Your task to perform on an android device: set the timer Image 0: 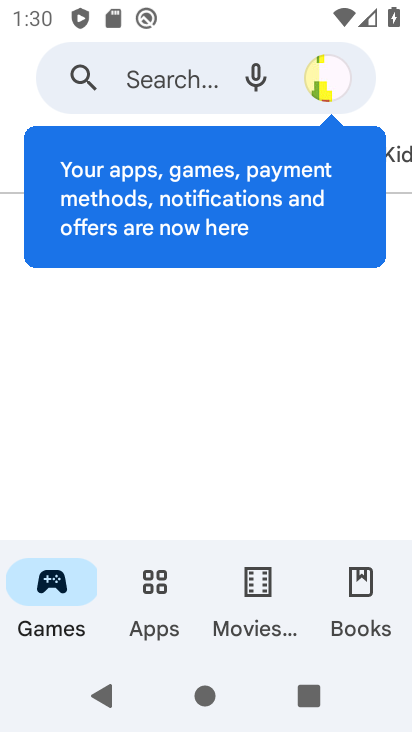
Step 0: press home button
Your task to perform on an android device: set the timer Image 1: 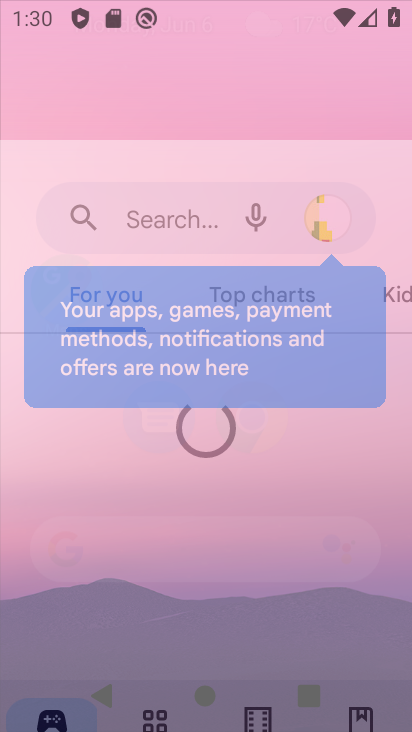
Step 1: press home button
Your task to perform on an android device: set the timer Image 2: 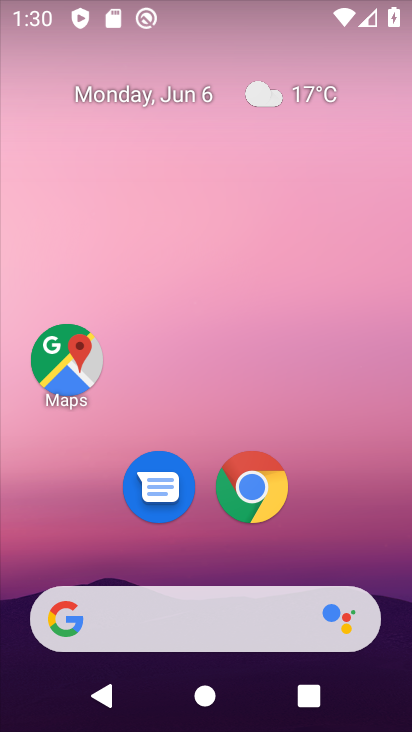
Step 2: press home button
Your task to perform on an android device: set the timer Image 3: 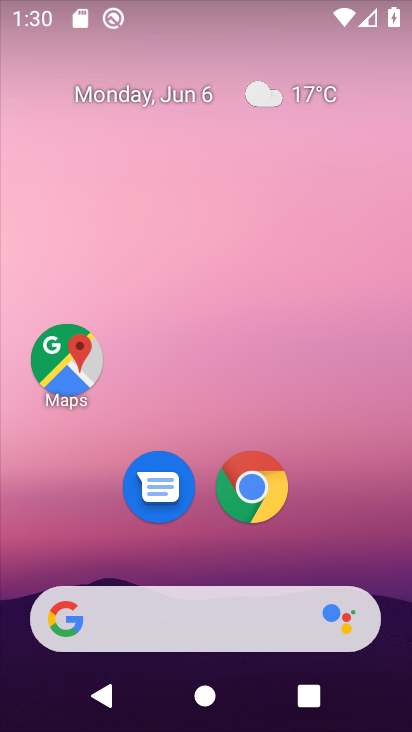
Step 3: click (251, 104)
Your task to perform on an android device: set the timer Image 4: 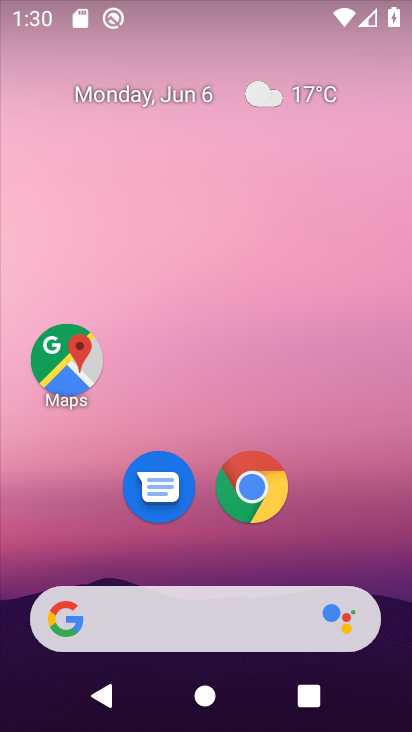
Step 4: drag from (253, 591) to (411, 64)
Your task to perform on an android device: set the timer Image 5: 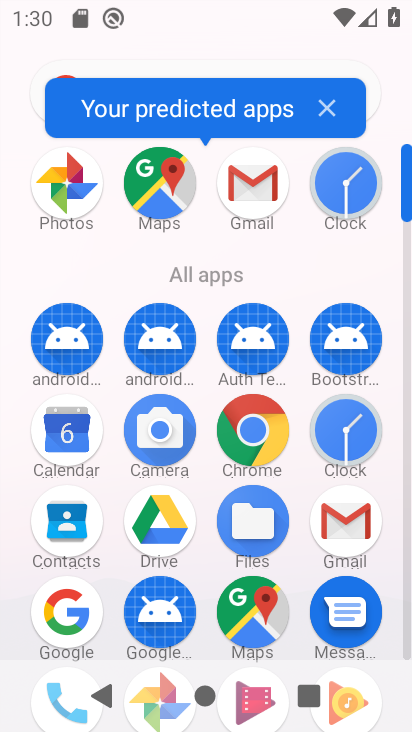
Step 5: click (343, 190)
Your task to perform on an android device: set the timer Image 6: 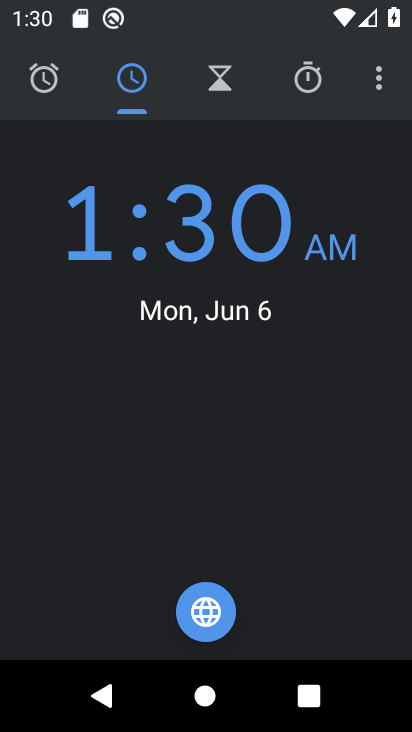
Step 6: click (34, 73)
Your task to perform on an android device: set the timer Image 7: 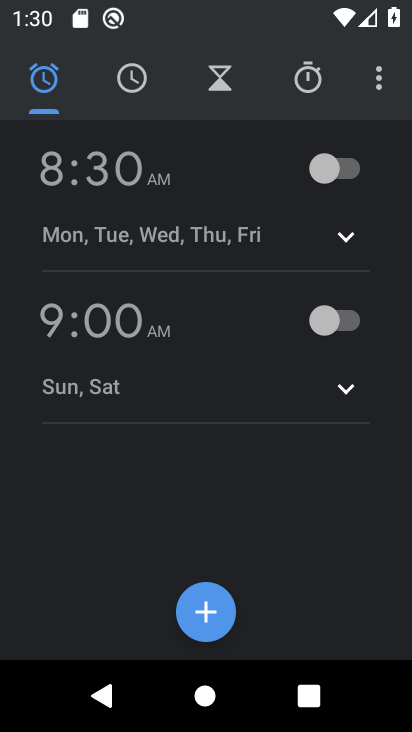
Step 7: click (329, 160)
Your task to perform on an android device: set the timer Image 8: 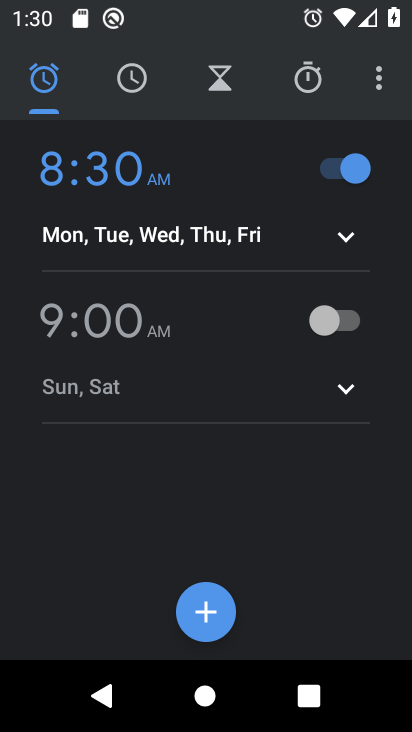
Step 8: click (310, 74)
Your task to perform on an android device: set the timer Image 9: 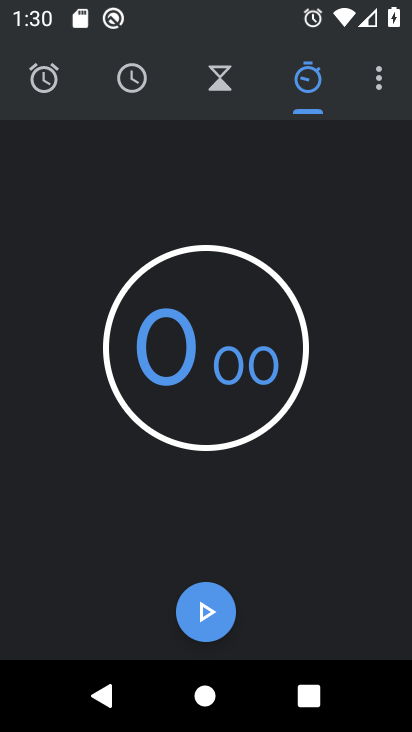
Step 9: task complete